Your task to perform on an android device: remove spam from my inbox in the gmail app Image 0: 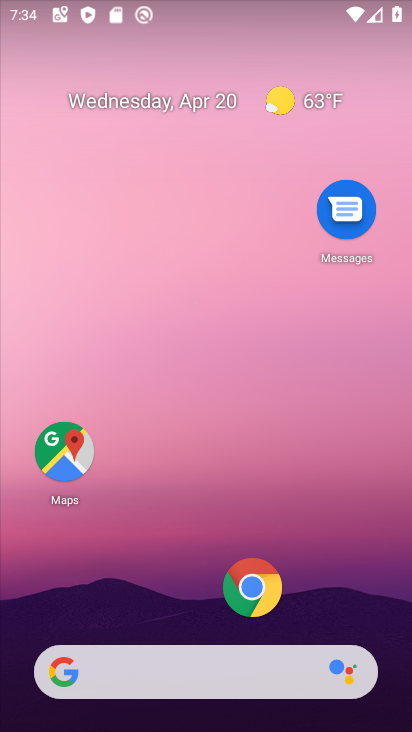
Step 0: drag from (190, 671) to (303, 209)
Your task to perform on an android device: remove spam from my inbox in the gmail app Image 1: 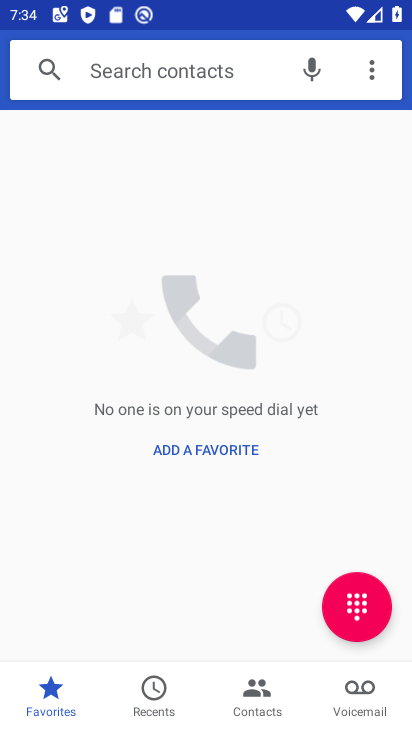
Step 1: press home button
Your task to perform on an android device: remove spam from my inbox in the gmail app Image 2: 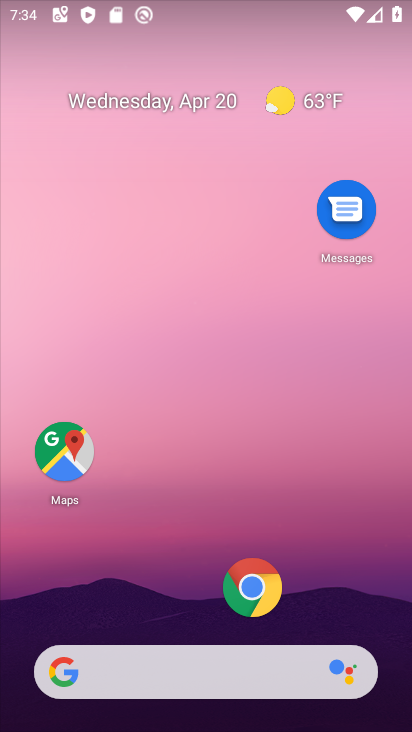
Step 2: drag from (128, 670) to (232, 226)
Your task to perform on an android device: remove spam from my inbox in the gmail app Image 3: 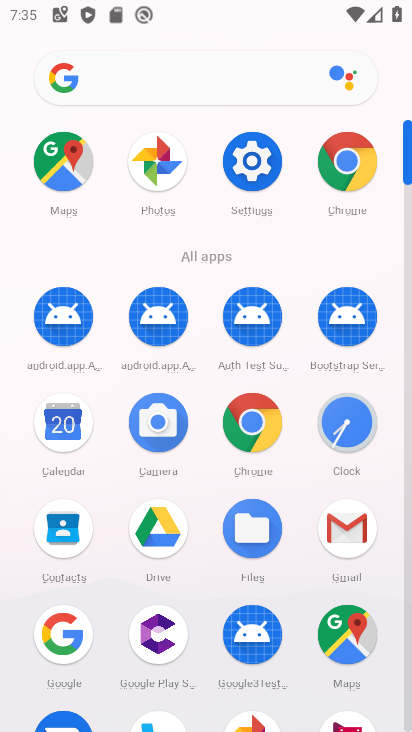
Step 3: click (348, 535)
Your task to perform on an android device: remove spam from my inbox in the gmail app Image 4: 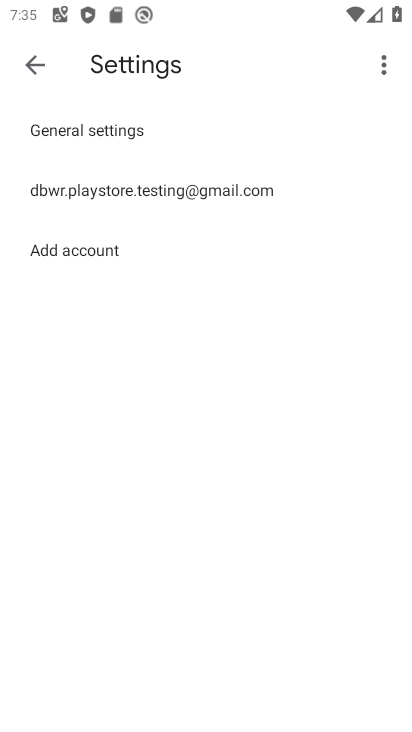
Step 4: click (30, 60)
Your task to perform on an android device: remove spam from my inbox in the gmail app Image 5: 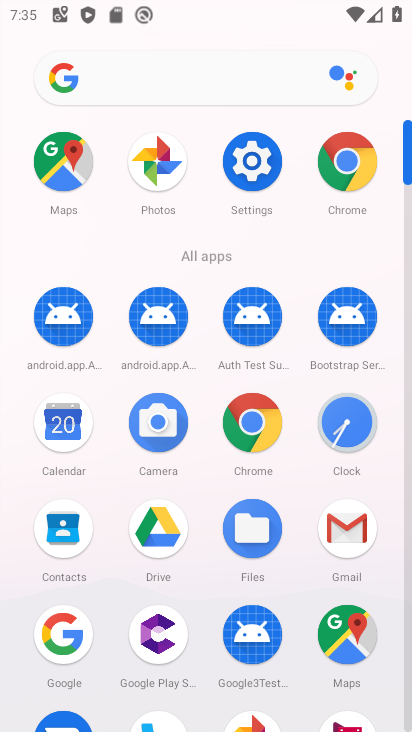
Step 5: click (346, 531)
Your task to perform on an android device: remove spam from my inbox in the gmail app Image 6: 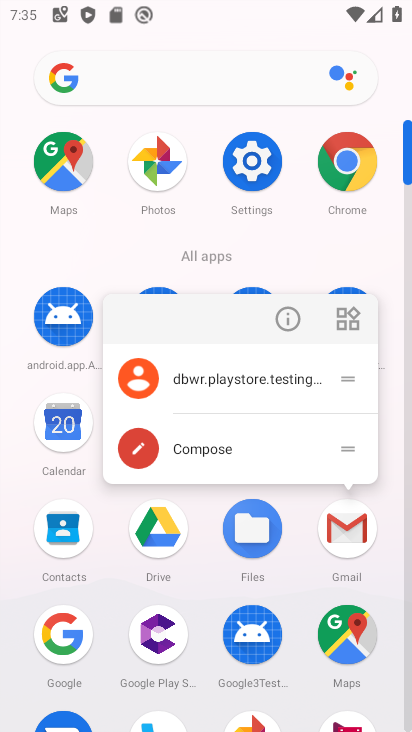
Step 6: click (346, 538)
Your task to perform on an android device: remove spam from my inbox in the gmail app Image 7: 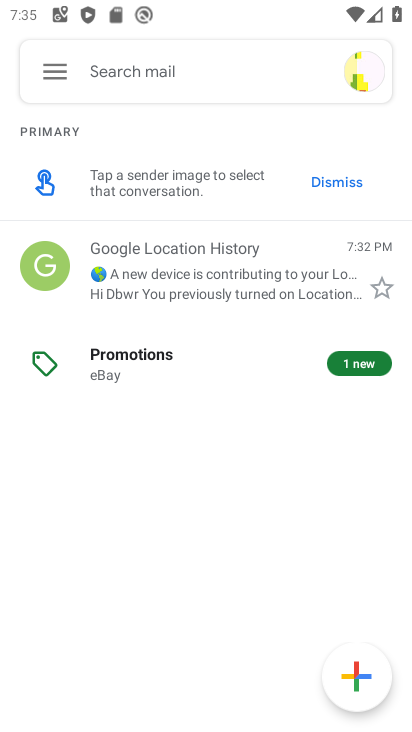
Step 7: click (54, 69)
Your task to perform on an android device: remove spam from my inbox in the gmail app Image 8: 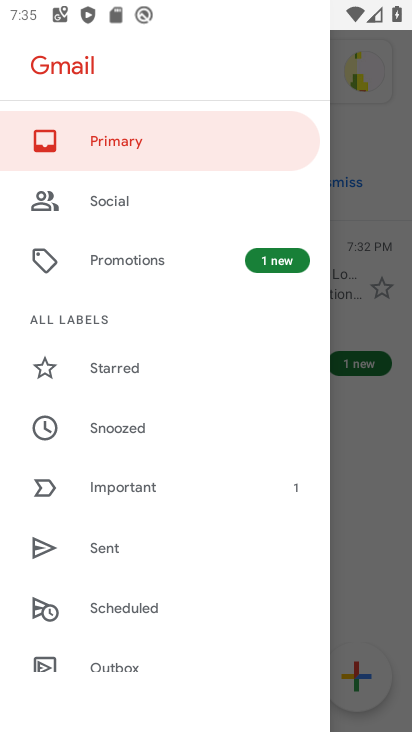
Step 8: drag from (180, 619) to (273, 301)
Your task to perform on an android device: remove spam from my inbox in the gmail app Image 9: 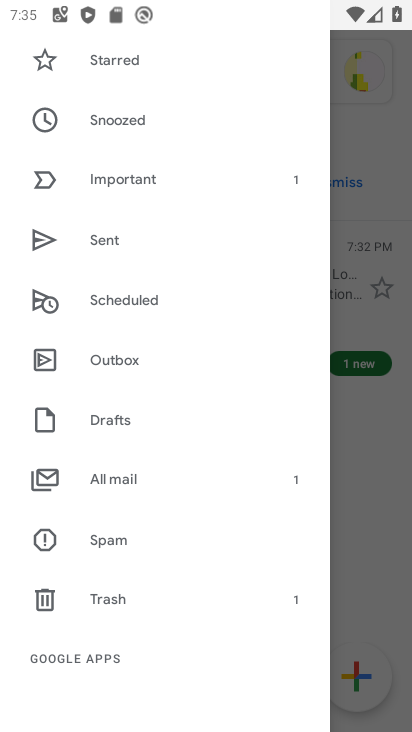
Step 9: click (114, 537)
Your task to perform on an android device: remove spam from my inbox in the gmail app Image 10: 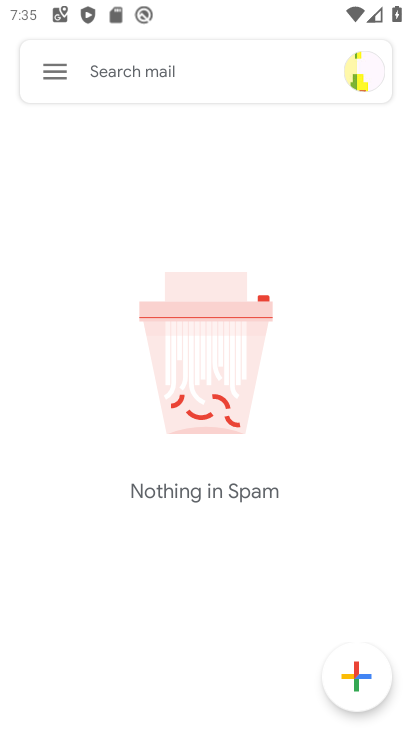
Step 10: task complete